Your task to perform on an android device: Open internet settings Image 0: 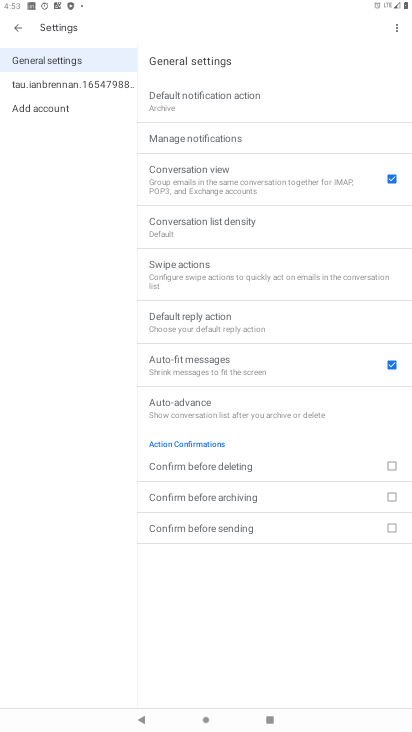
Step 0: press home button
Your task to perform on an android device: Open internet settings Image 1: 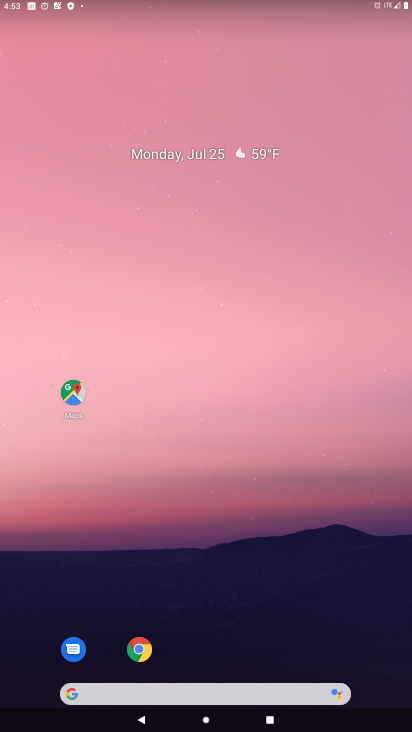
Step 1: drag from (295, 650) to (248, 9)
Your task to perform on an android device: Open internet settings Image 2: 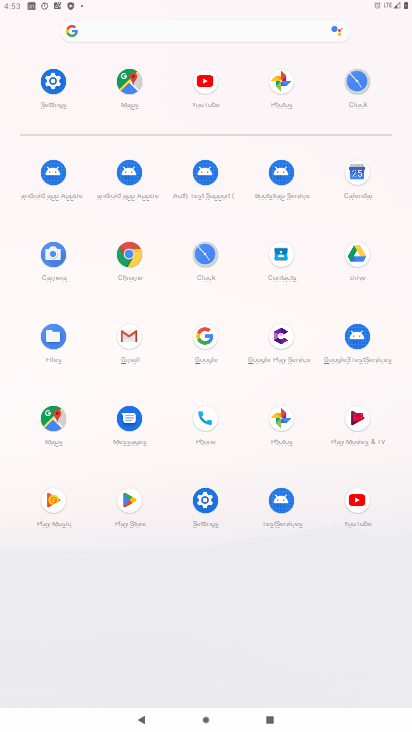
Step 2: click (51, 83)
Your task to perform on an android device: Open internet settings Image 3: 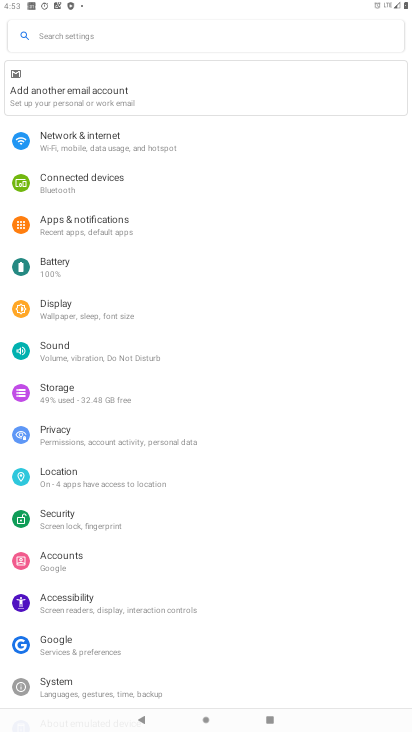
Step 3: click (89, 143)
Your task to perform on an android device: Open internet settings Image 4: 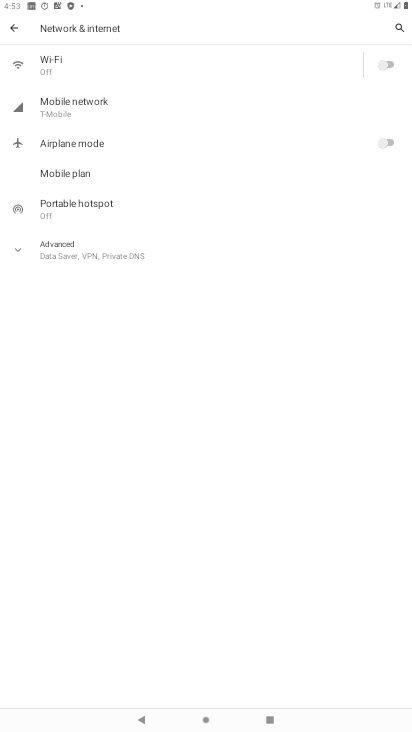
Step 4: task complete